Your task to perform on an android device: Open Maps and search for coffee Image 0: 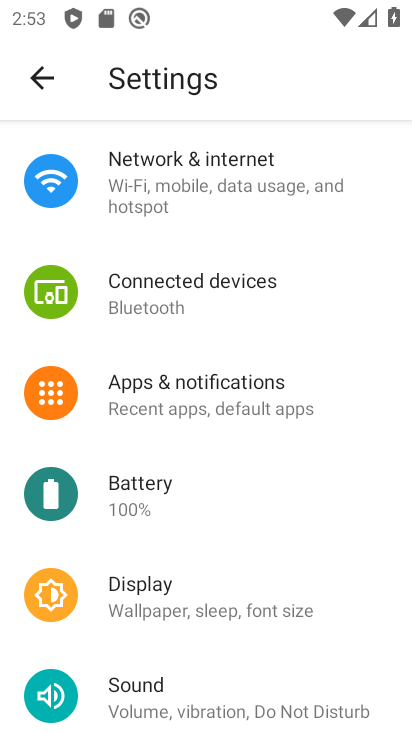
Step 0: press home button
Your task to perform on an android device: Open Maps and search for coffee Image 1: 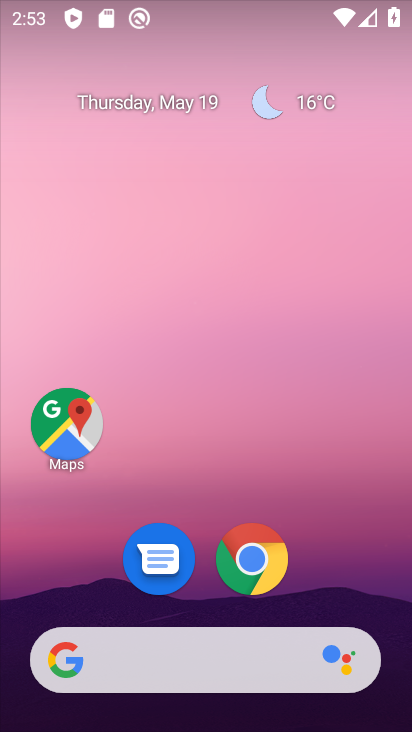
Step 1: click (83, 431)
Your task to perform on an android device: Open Maps and search for coffee Image 2: 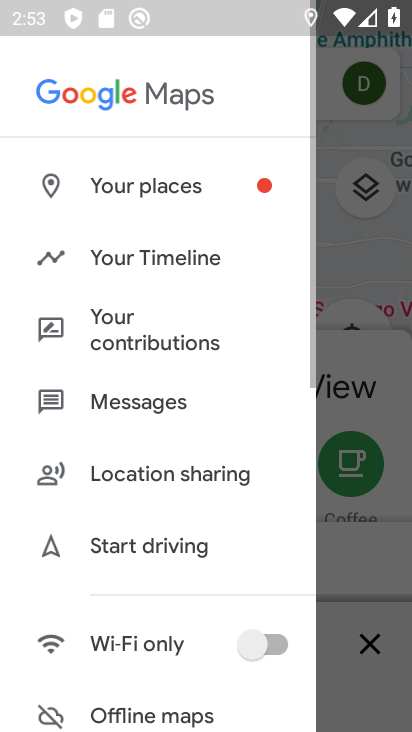
Step 2: click (361, 276)
Your task to perform on an android device: Open Maps and search for coffee Image 3: 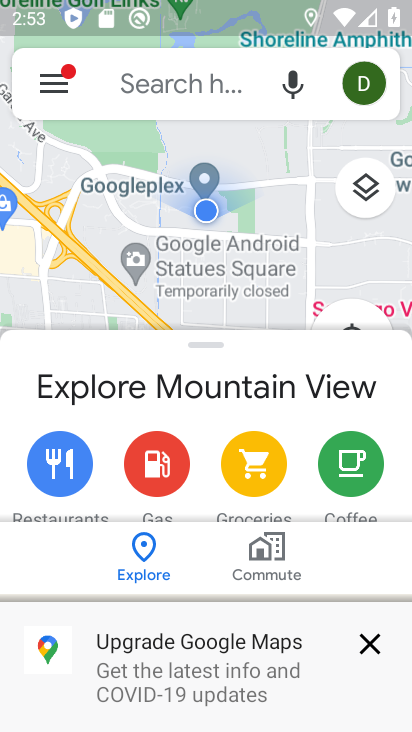
Step 3: click (225, 83)
Your task to perform on an android device: Open Maps and search for coffee Image 4: 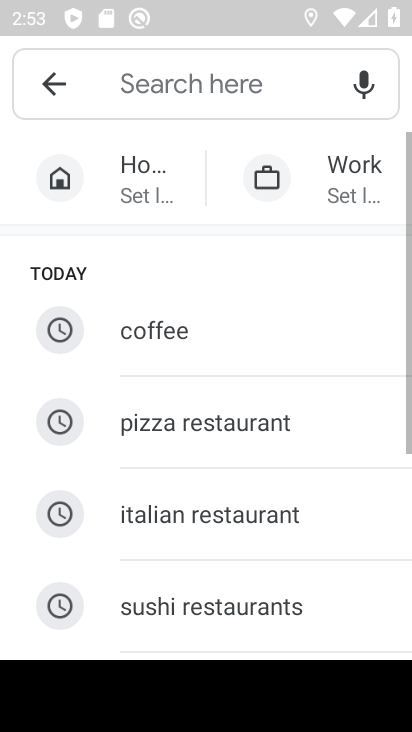
Step 4: click (170, 328)
Your task to perform on an android device: Open Maps and search for coffee Image 5: 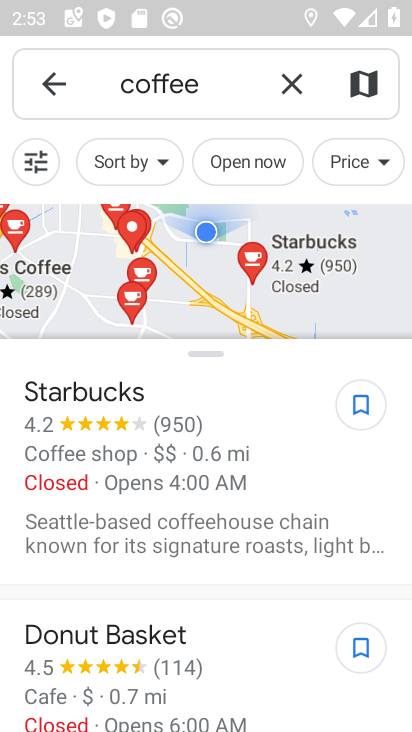
Step 5: task complete